Your task to perform on an android device: Search for vegetarian restaurants on Maps Image 0: 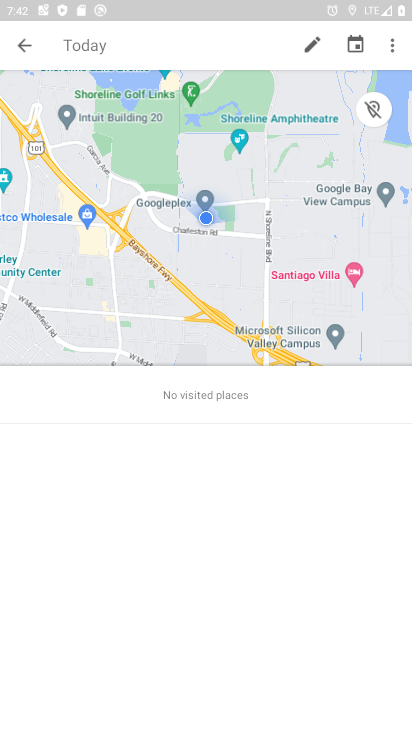
Step 0: click (25, 40)
Your task to perform on an android device: Search for vegetarian restaurants on Maps Image 1: 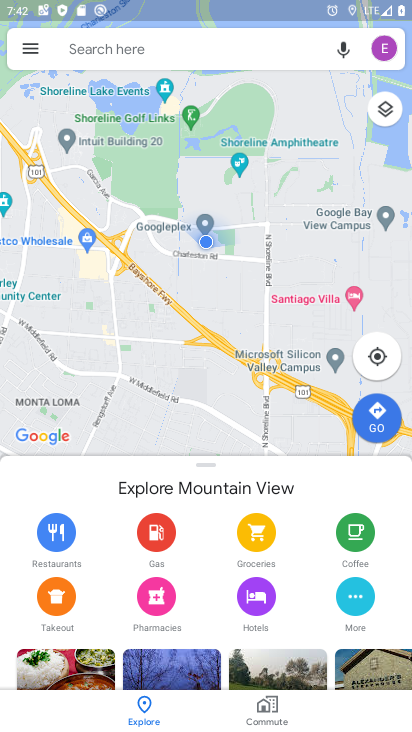
Step 1: click (125, 40)
Your task to perform on an android device: Search for vegetarian restaurants on Maps Image 2: 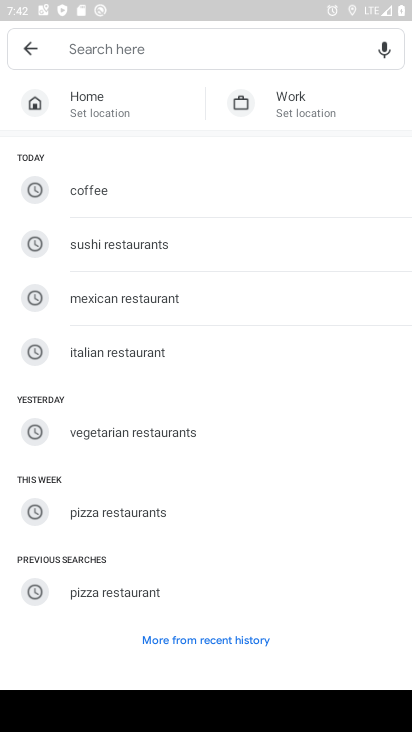
Step 2: click (134, 424)
Your task to perform on an android device: Search for vegetarian restaurants on Maps Image 3: 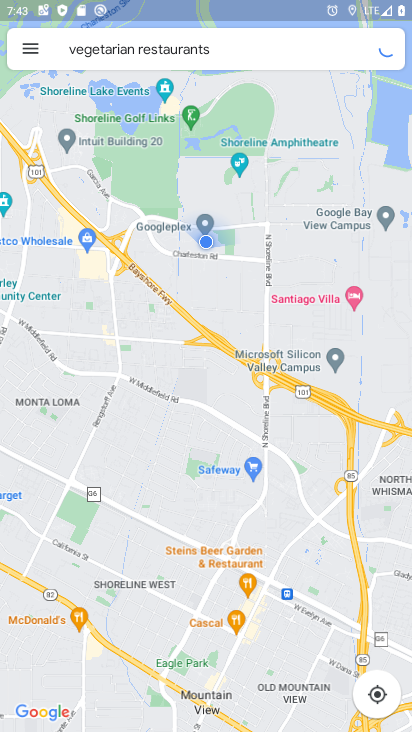
Step 3: task complete